Your task to perform on an android device: show emergency info Image 0: 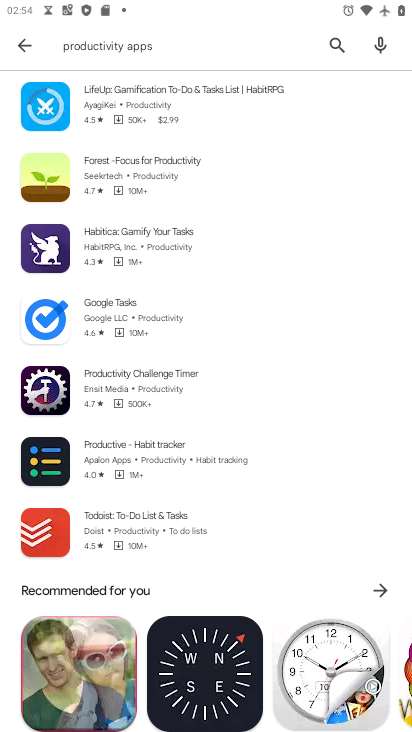
Step 0: press home button
Your task to perform on an android device: show emergency info Image 1: 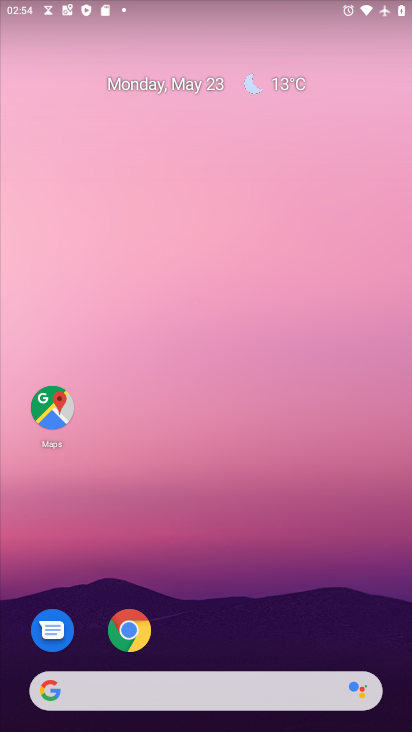
Step 1: drag from (274, 592) to (130, 8)
Your task to perform on an android device: show emergency info Image 2: 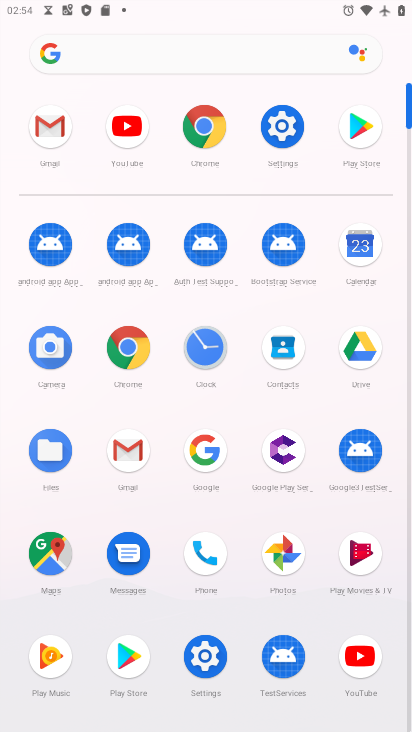
Step 2: click (290, 128)
Your task to perform on an android device: show emergency info Image 3: 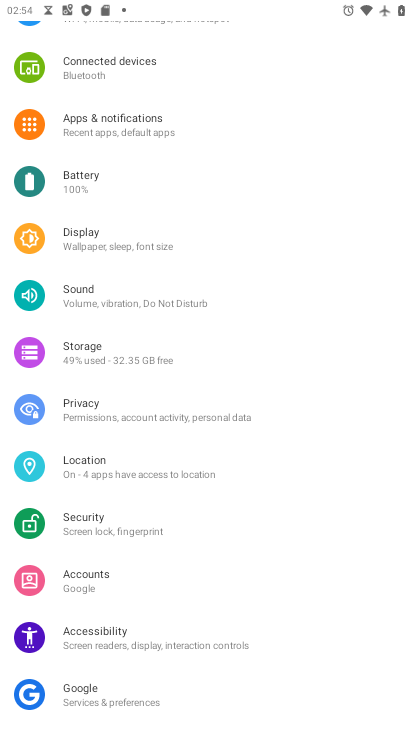
Step 3: drag from (249, 636) to (220, 259)
Your task to perform on an android device: show emergency info Image 4: 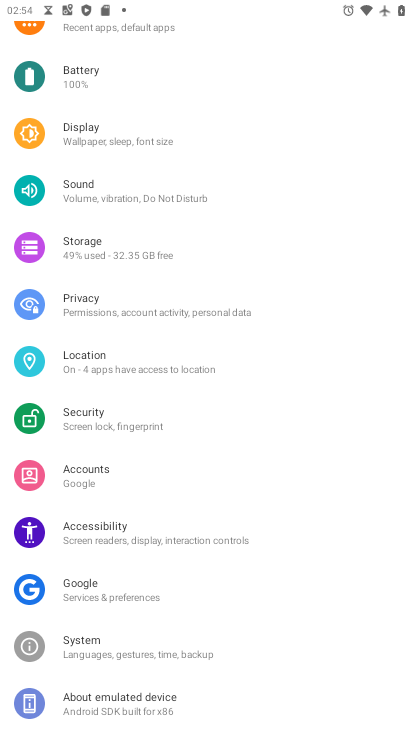
Step 4: click (157, 690)
Your task to perform on an android device: show emergency info Image 5: 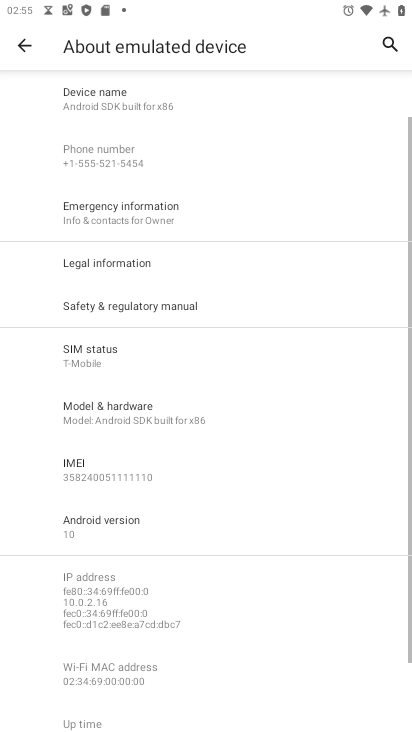
Step 5: click (184, 221)
Your task to perform on an android device: show emergency info Image 6: 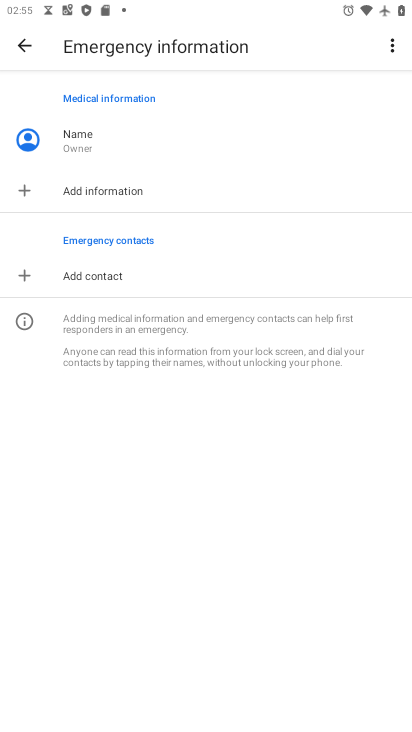
Step 6: task complete